Your task to perform on an android device: choose inbox layout in the gmail app Image 0: 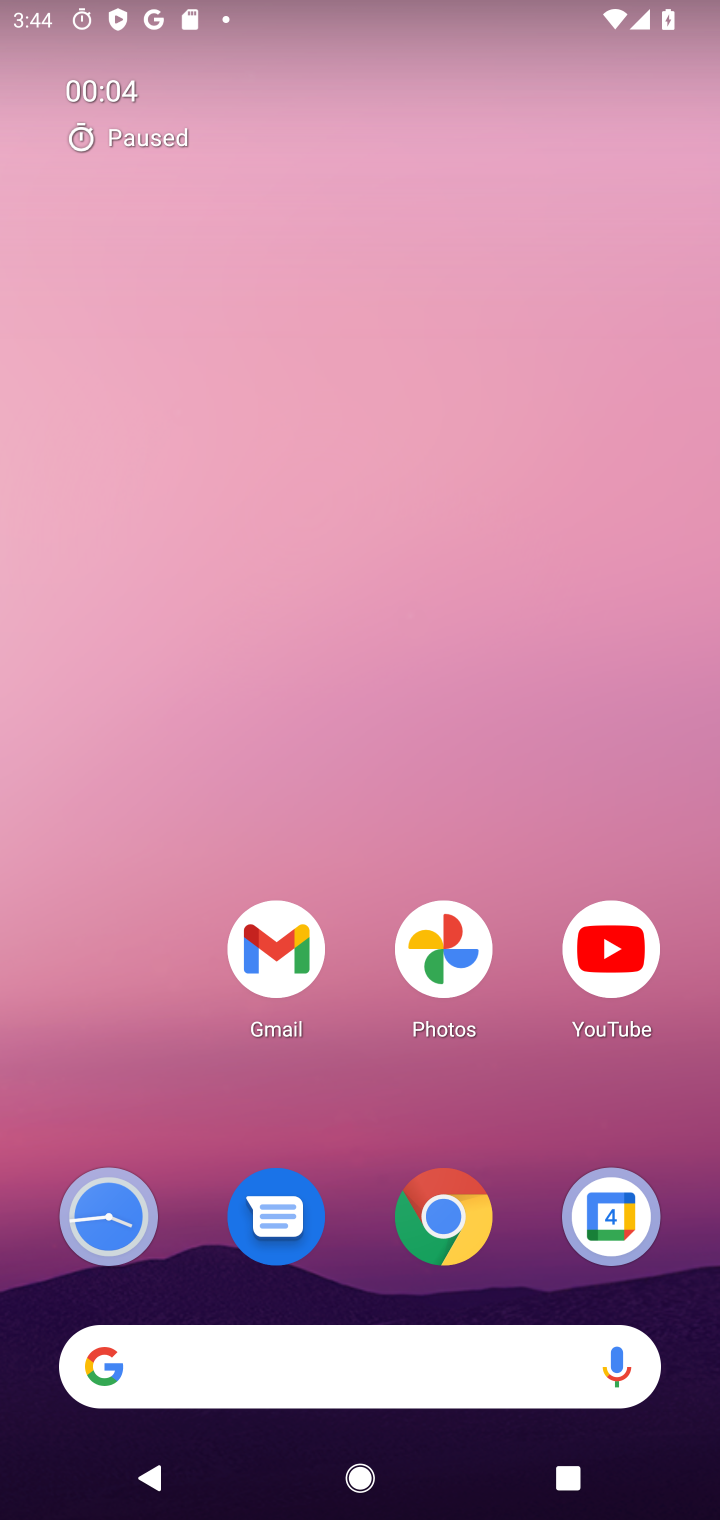
Step 0: click (275, 935)
Your task to perform on an android device: choose inbox layout in the gmail app Image 1: 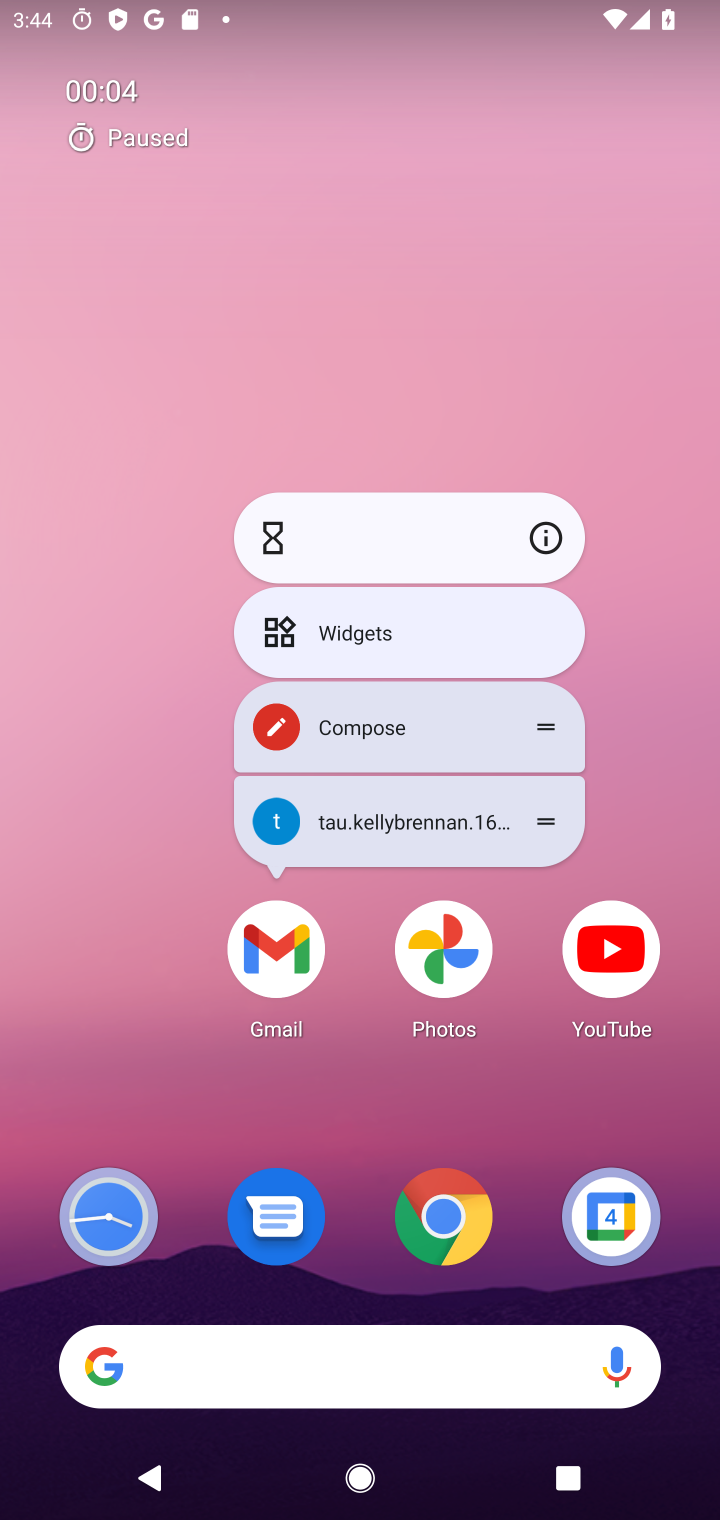
Step 1: click (252, 944)
Your task to perform on an android device: choose inbox layout in the gmail app Image 2: 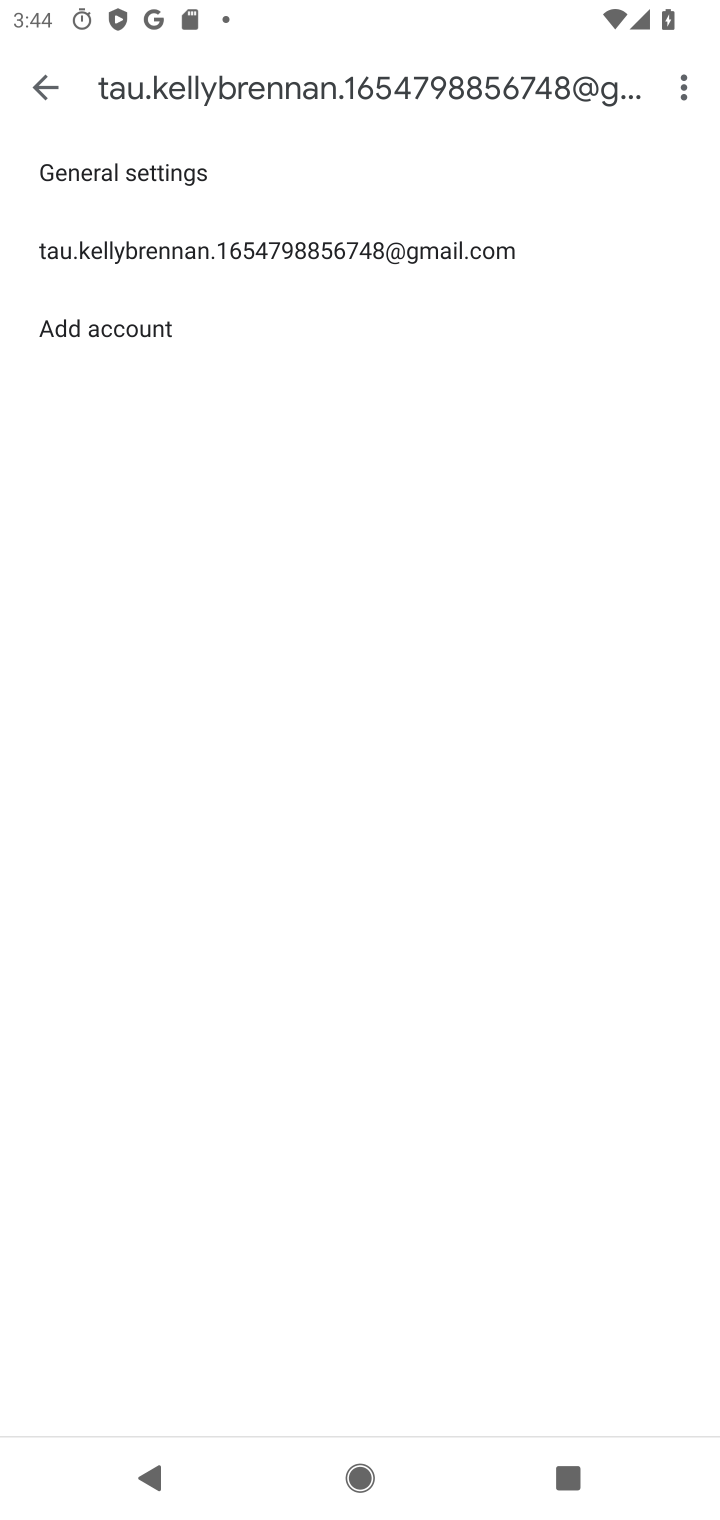
Step 2: click (221, 238)
Your task to perform on an android device: choose inbox layout in the gmail app Image 3: 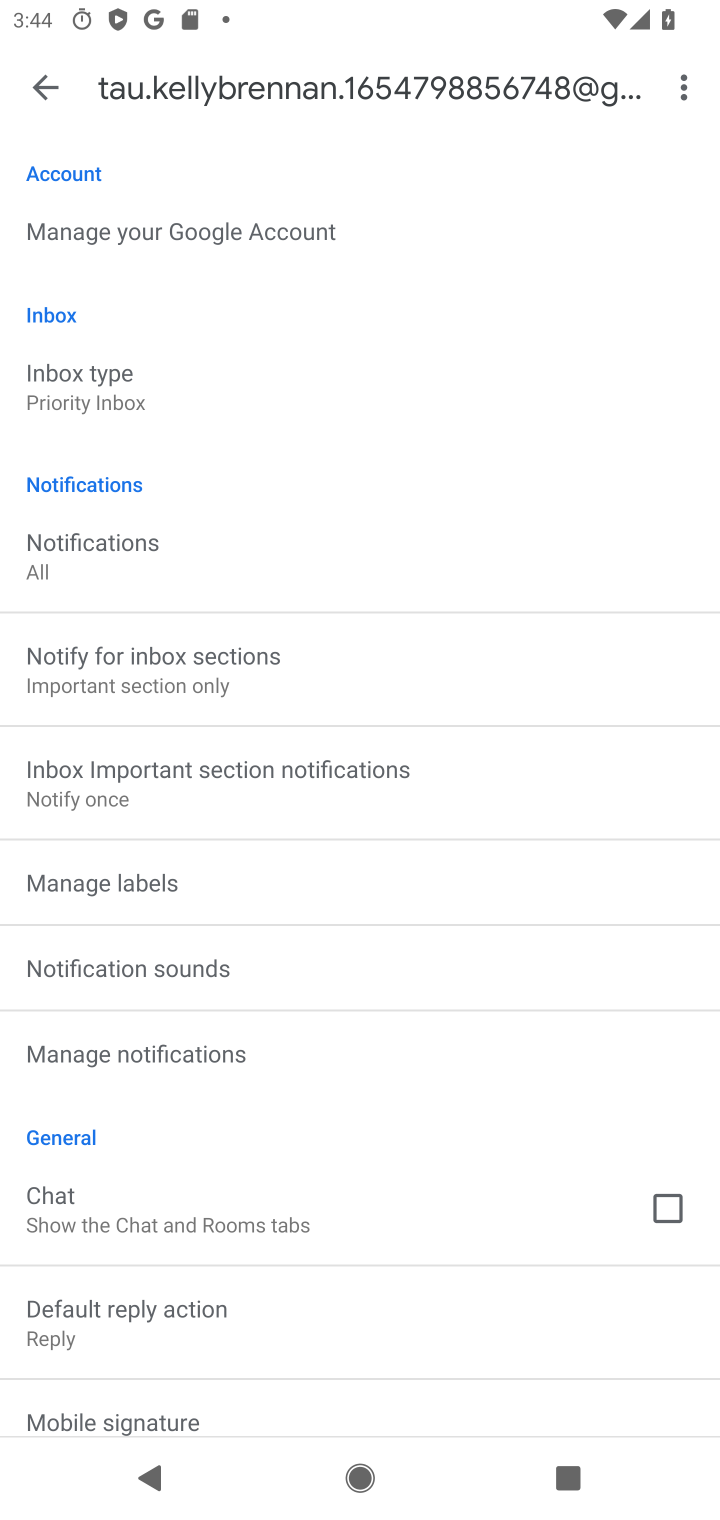
Step 3: click (116, 408)
Your task to perform on an android device: choose inbox layout in the gmail app Image 4: 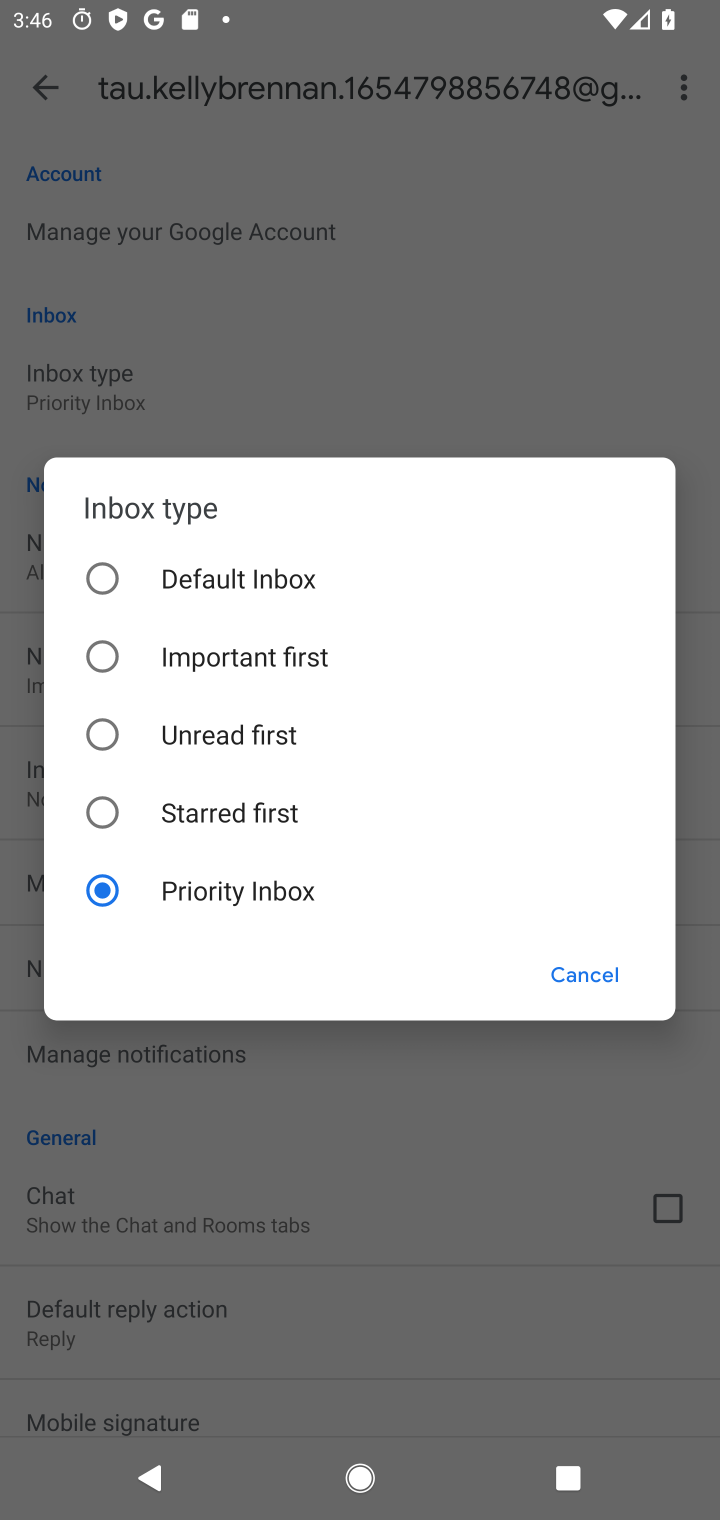
Step 4: task complete